Your task to perform on an android device: delete a single message in the gmail app Image 0: 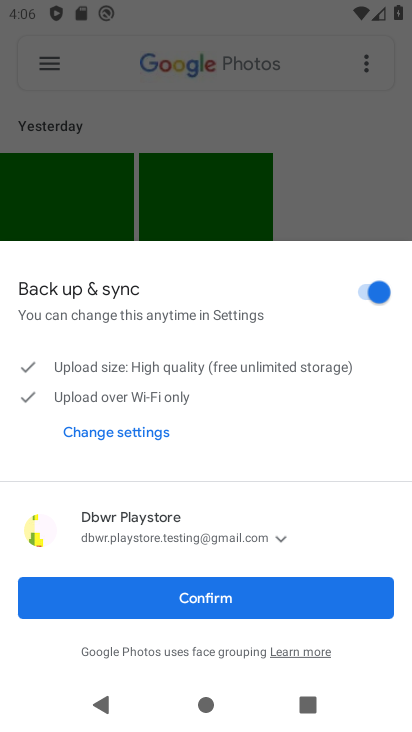
Step 0: press home button
Your task to perform on an android device: delete a single message in the gmail app Image 1: 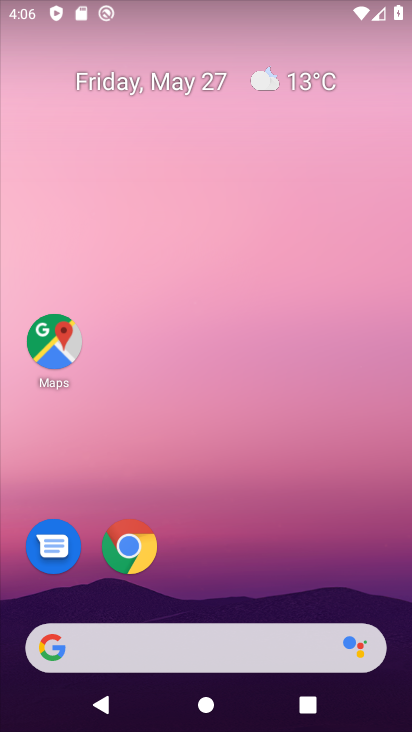
Step 1: drag from (140, 602) to (231, 130)
Your task to perform on an android device: delete a single message in the gmail app Image 2: 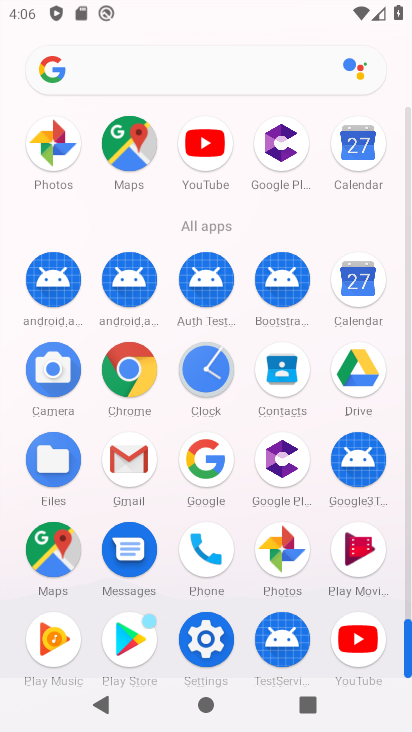
Step 2: drag from (150, 513) to (183, 333)
Your task to perform on an android device: delete a single message in the gmail app Image 3: 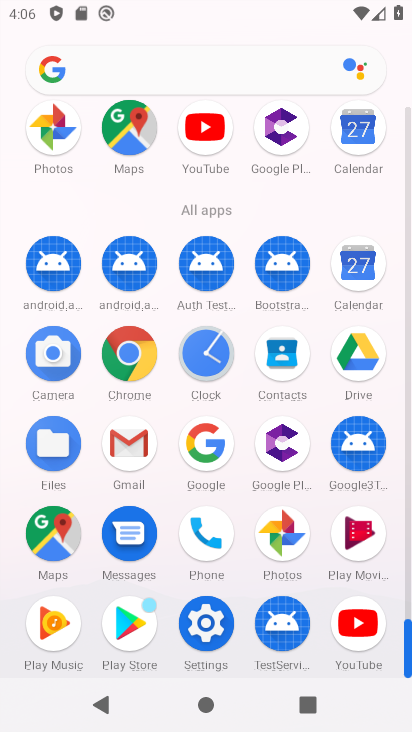
Step 3: click (125, 435)
Your task to perform on an android device: delete a single message in the gmail app Image 4: 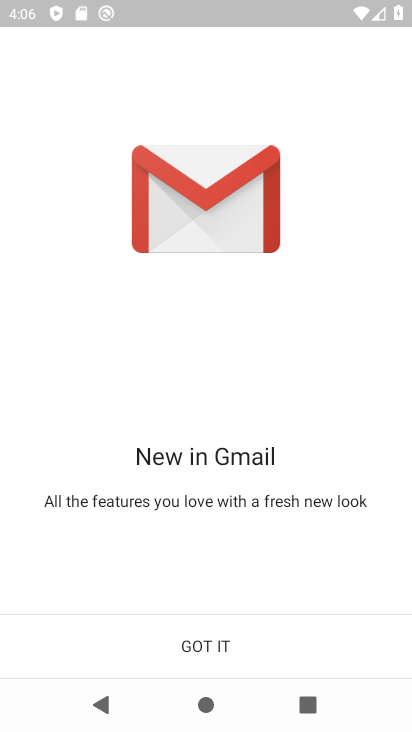
Step 4: click (227, 642)
Your task to perform on an android device: delete a single message in the gmail app Image 5: 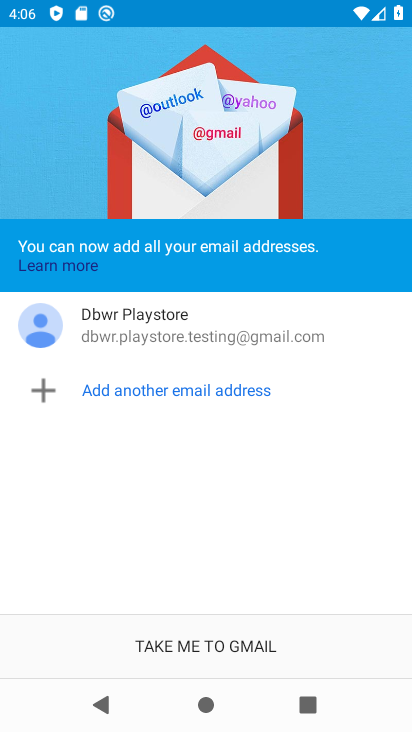
Step 5: click (227, 642)
Your task to perform on an android device: delete a single message in the gmail app Image 6: 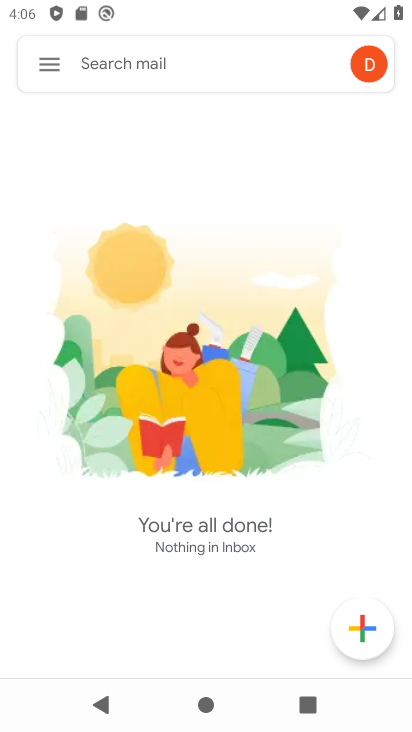
Step 6: click (61, 53)
Your task to perform on an android device: delete a single message in the gmail app Image 7: 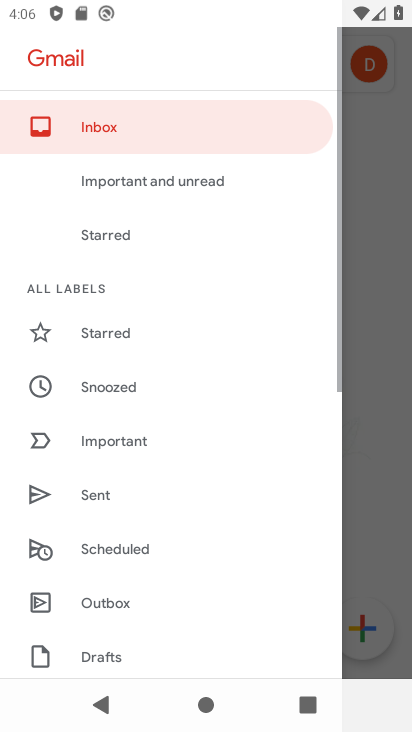
Step 7: drag from (165, 633) to (247, 228)
Your task to perform on an android device: delete a single message in the gmail app Image 8: 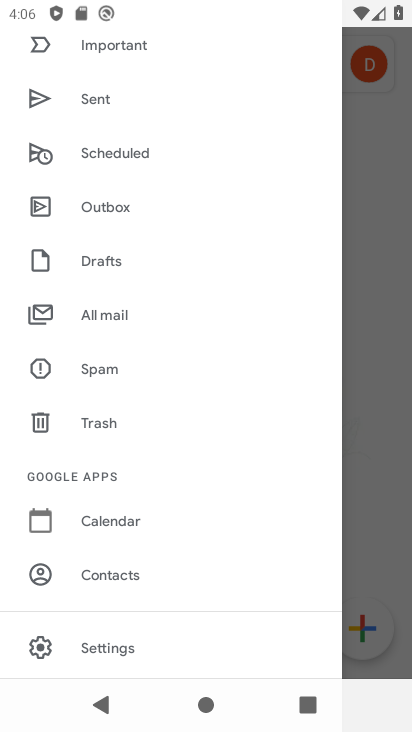
Step 8: click (168, 316)
Your task to perform on an android device: delete a single message in the gmail app Image 9: 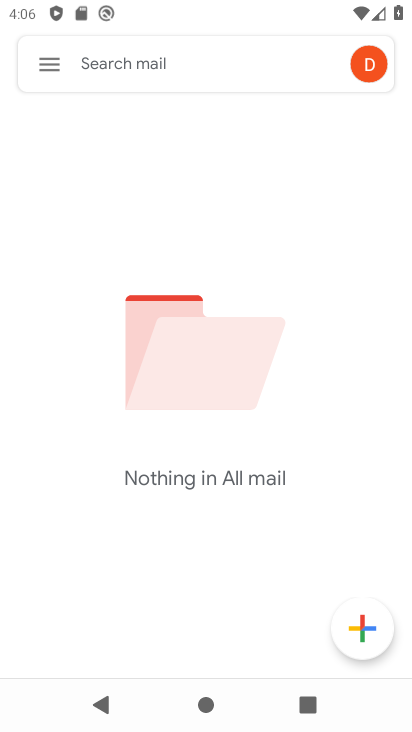
Step 9: task complete